Your task to perform on an android device: open app "Duolingo: language lessons" (install if not already installed) and go to login screen Image 0: 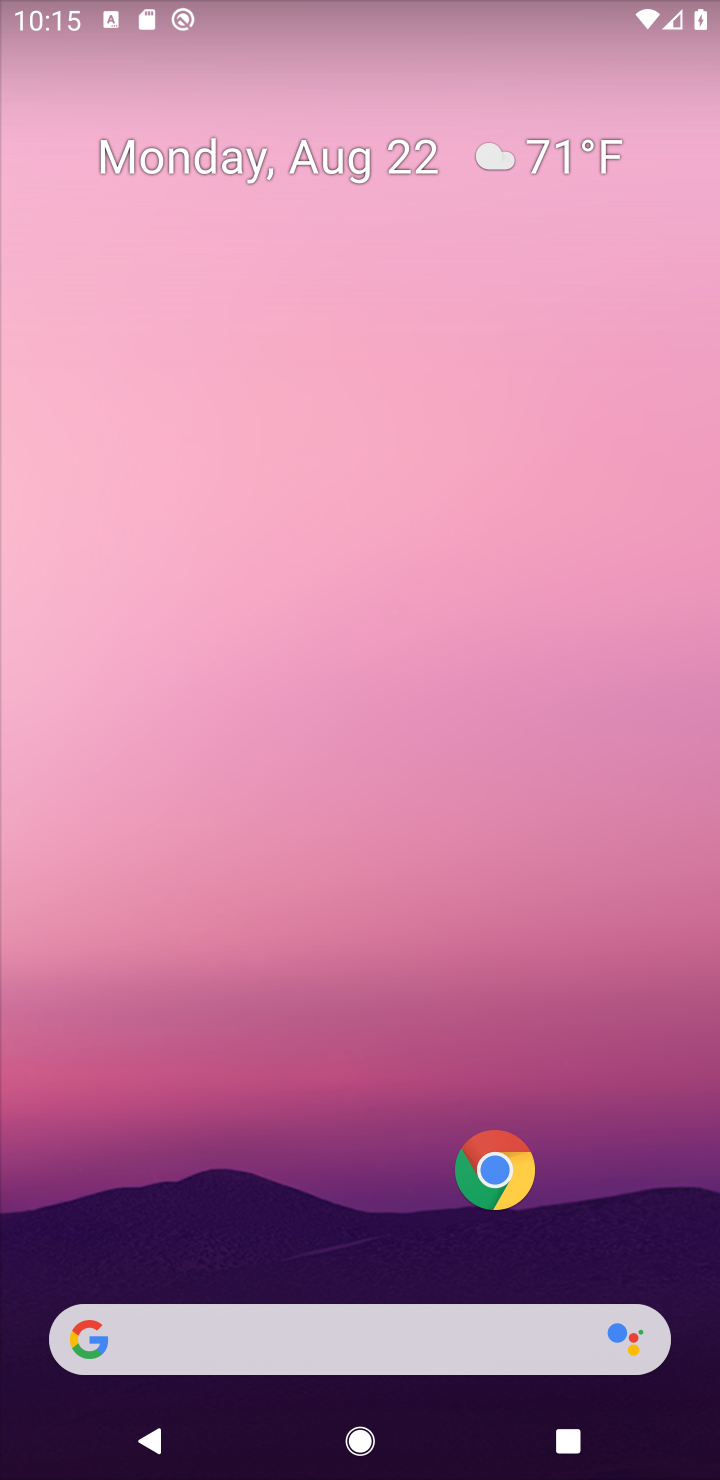
Step 0: drag from (424, 726) to (520, 196)
Your task to perform on an android device: open app "Duolingo: language lessons" (install if not already installed) and go to login screen Image 1: 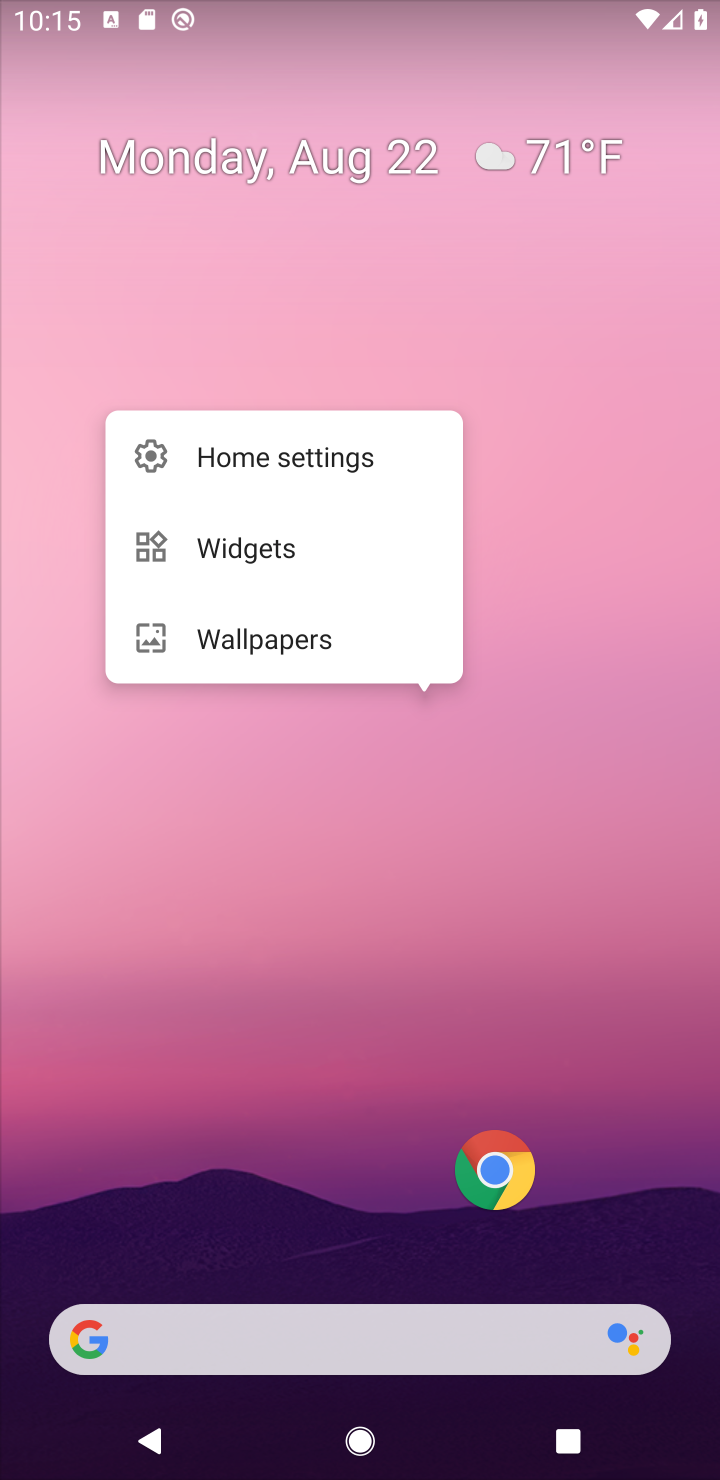
Step 1: click (274, 1142)
Your task to perform on an android device: open app "Duolingo: language lessons" (install if not already installed) and go to login screen Image 2: 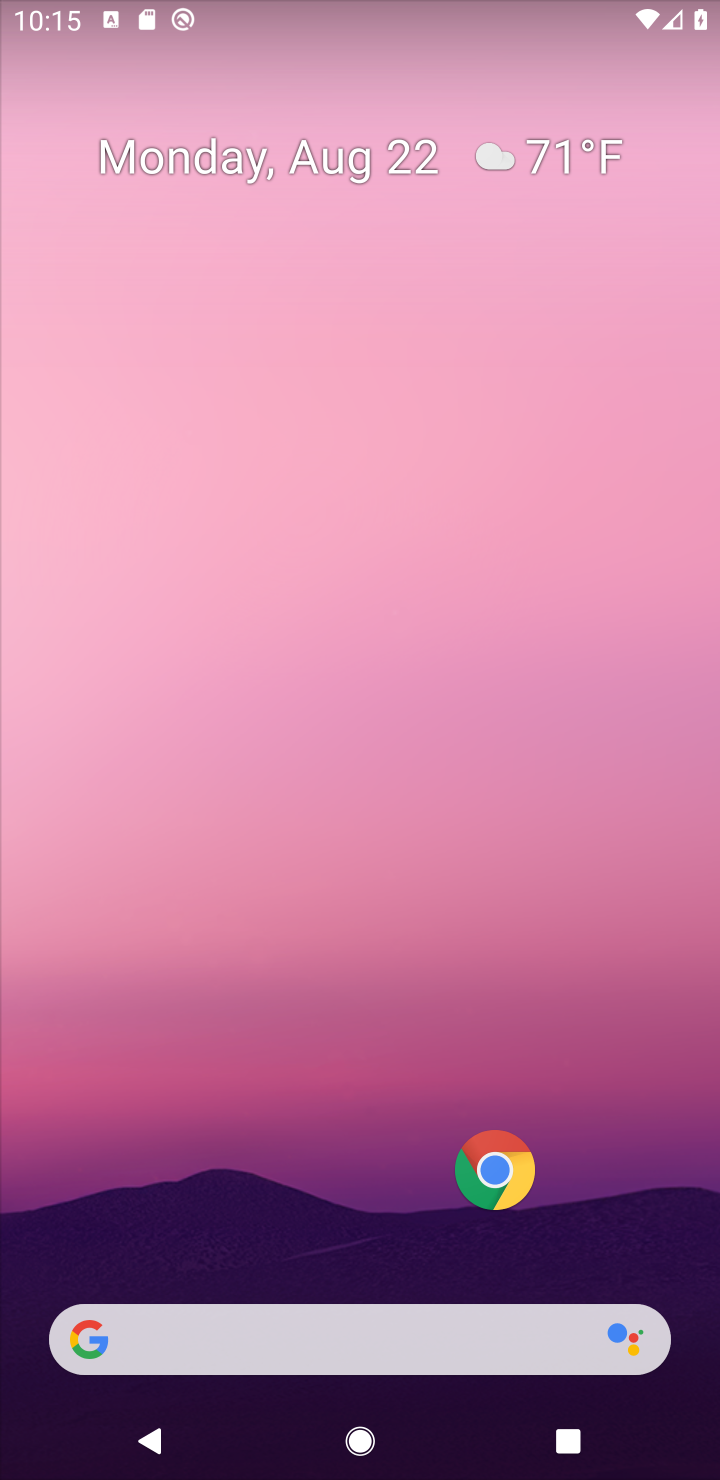
Step 2: drag from (241, 1138) to (413, 24)
Your task to perform on an android device: open app "Duolingo: language lessons" (install if not already installed) and go to login screen Image 3: 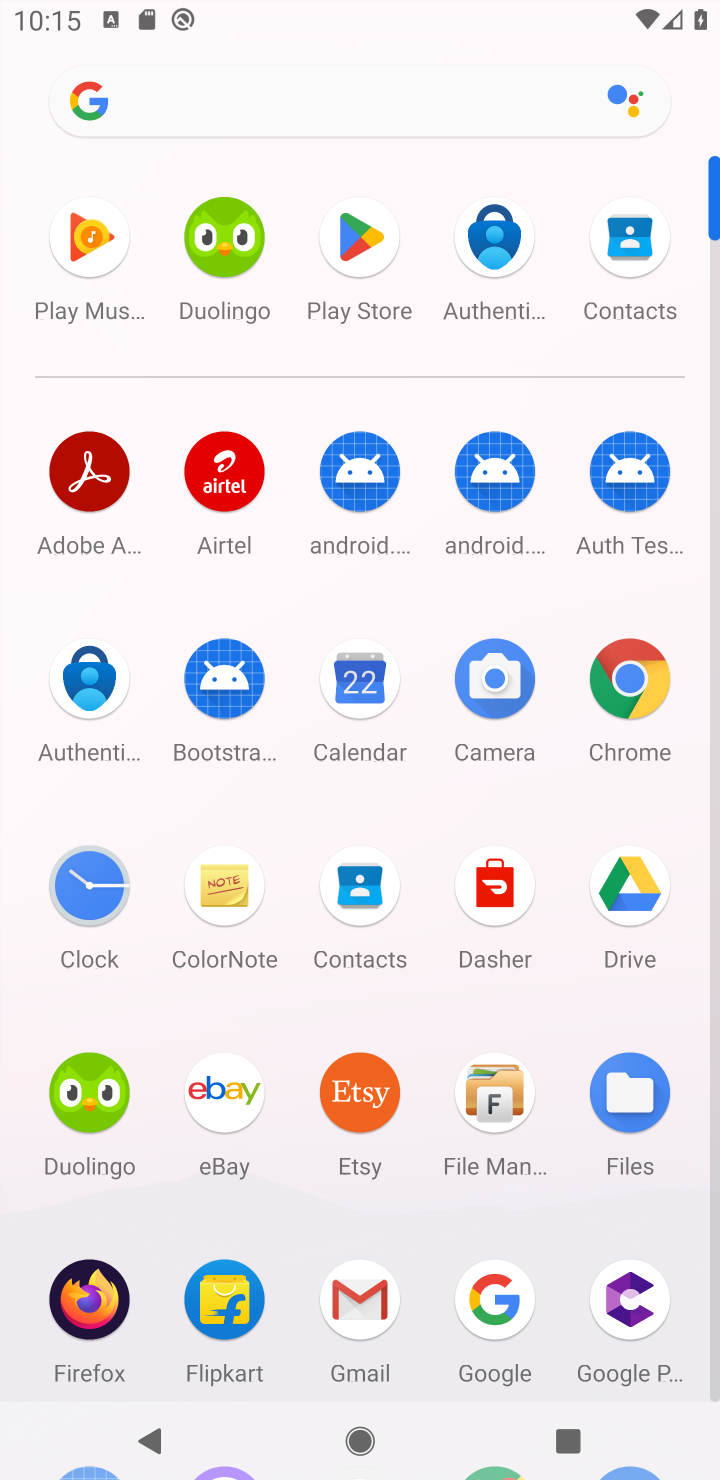
Step 3: click (366, 240)
Your task to perform on an android device: open app "Duolingo: language lessons" (install if not already installed) and go to login screen Image 4: 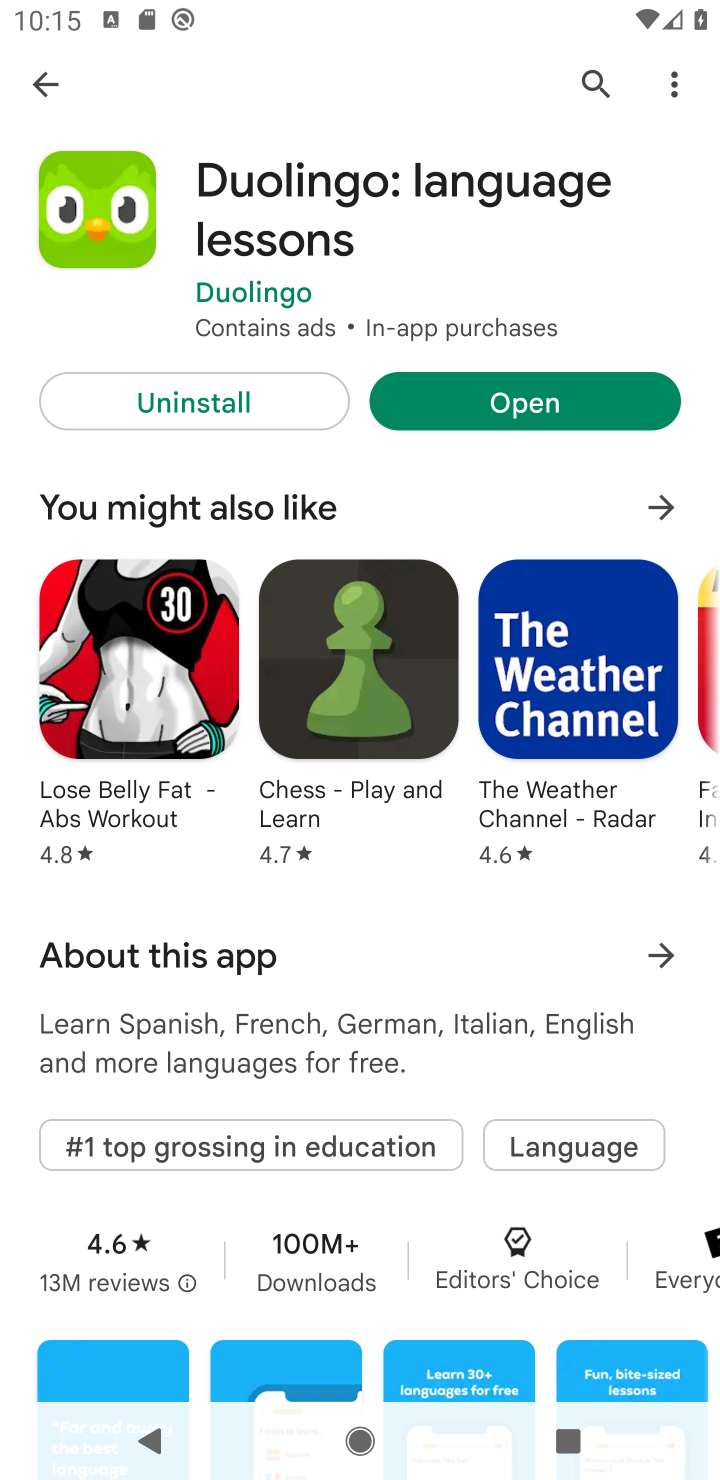
Step 4: click (591, 86)
Your task to perform on an android device: open app "Duolingo: language lessons" (install if not already installed) and go to login screen Image 5: 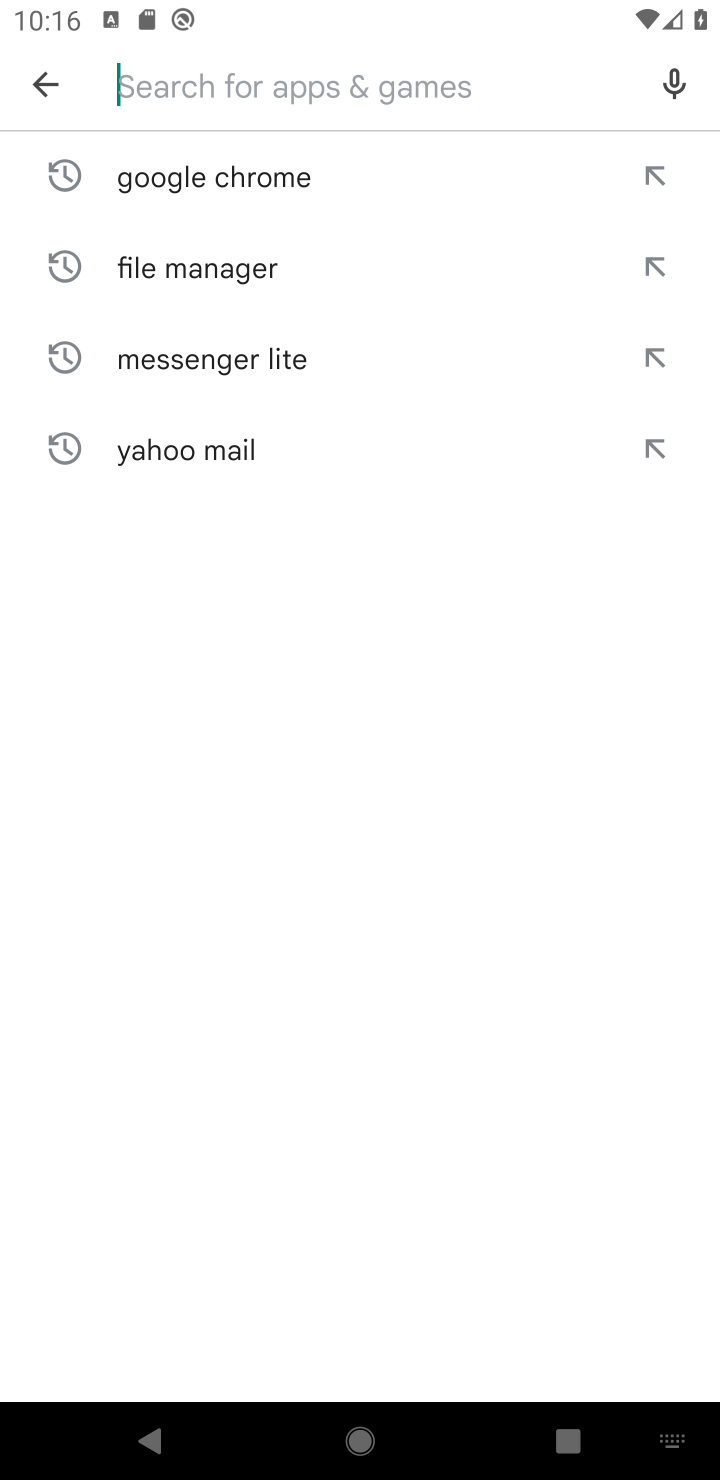
Step 5: press back button
Your task to perform on an android device: open app "Duolingo: language lessons" (install if not already installed) and go to login screen Image 6: 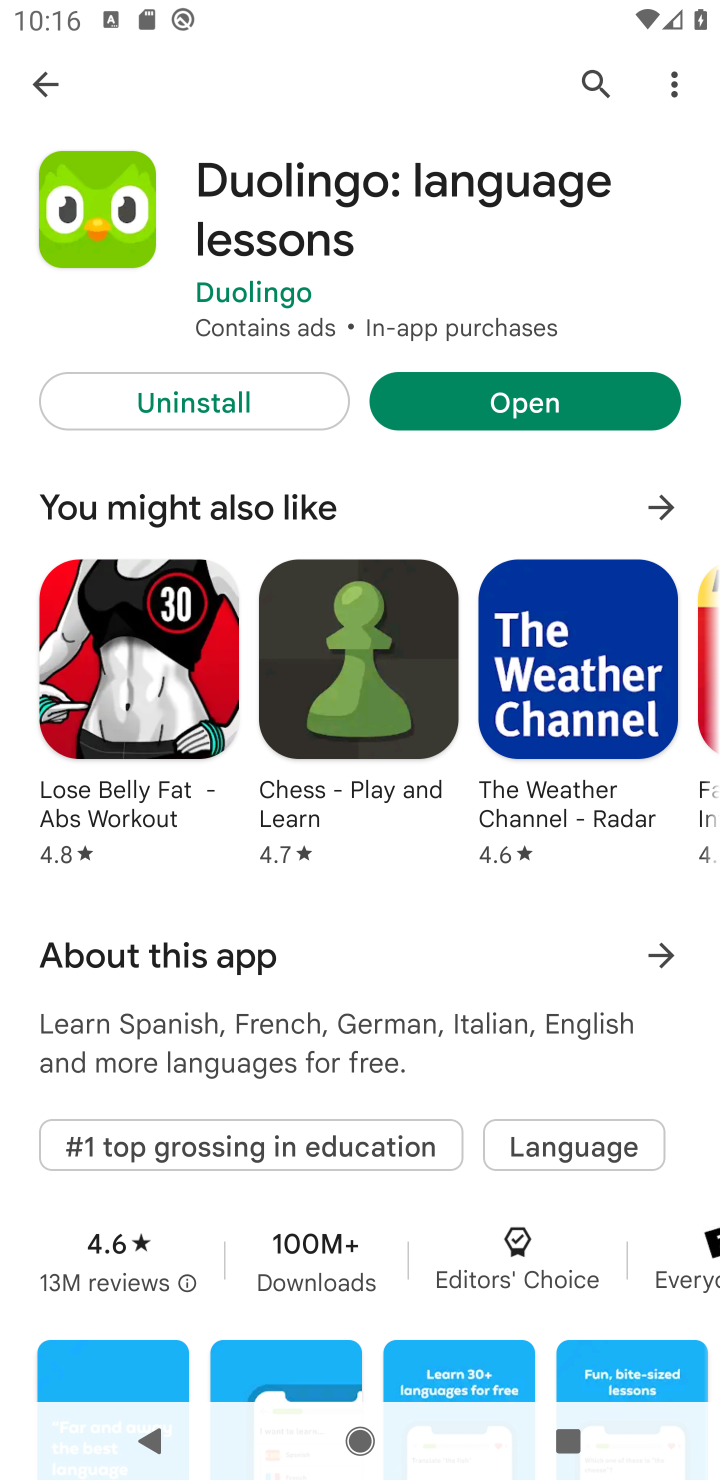
Step 6: click (493, 412)
Your task to perform on an android device: open app "Duolingo: language lessons" (install if not already installed) and go to login screen Image 7: 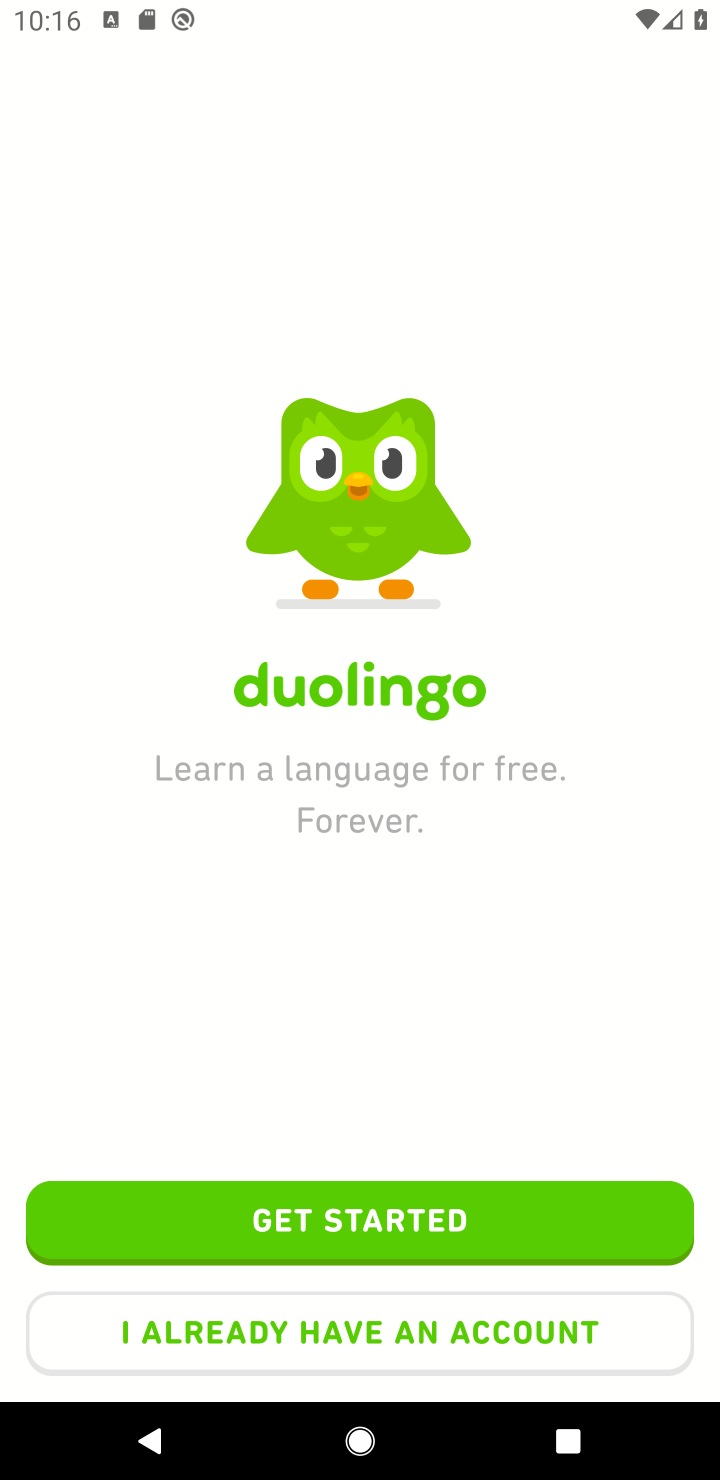
Step 7: click (296, 1338)
Your task to perform on an android device: open app "Duolingo: language lessons" (install if not already installed) and go to login screen Image 8: 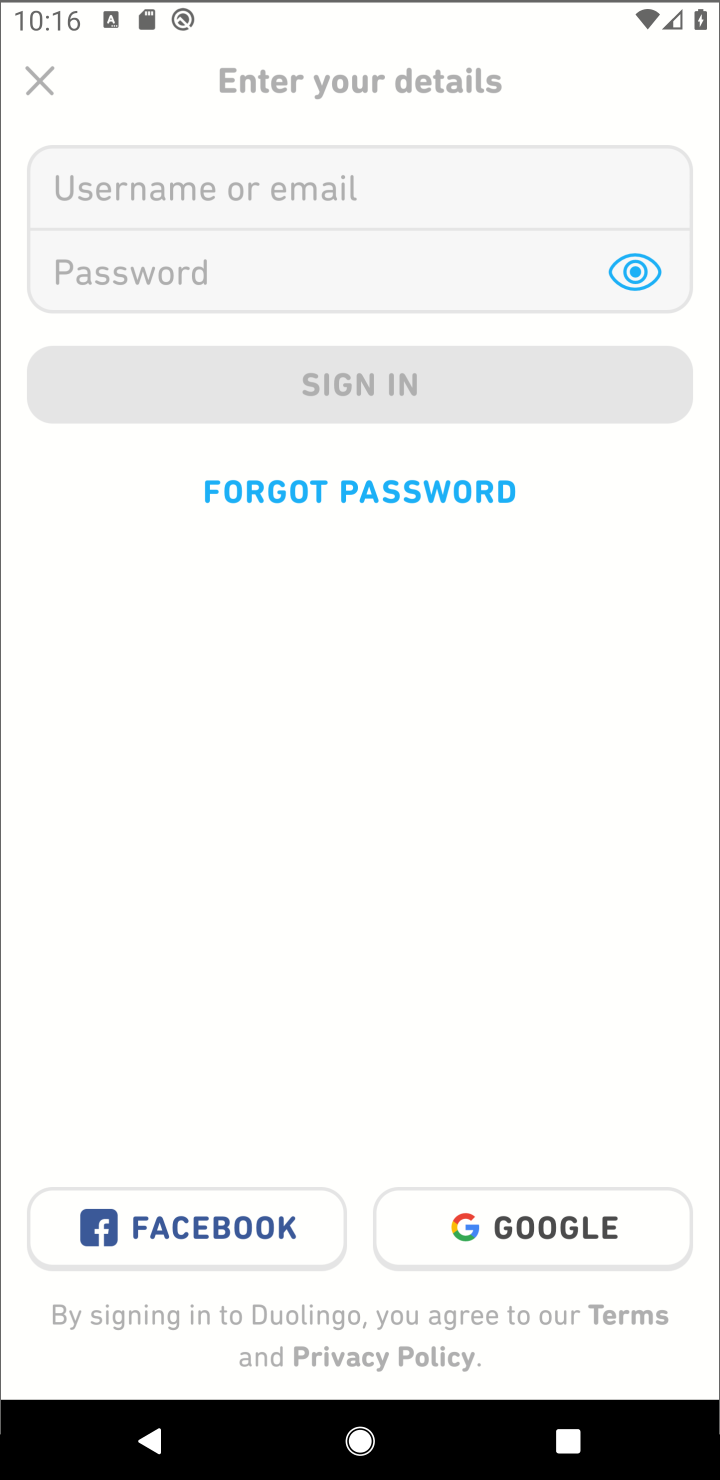
Step 8: click (313, 1317)
Your task to perform on an android device: open app "Duolingo: language lessons" (install if not already installed) and go to login screen Image 9: 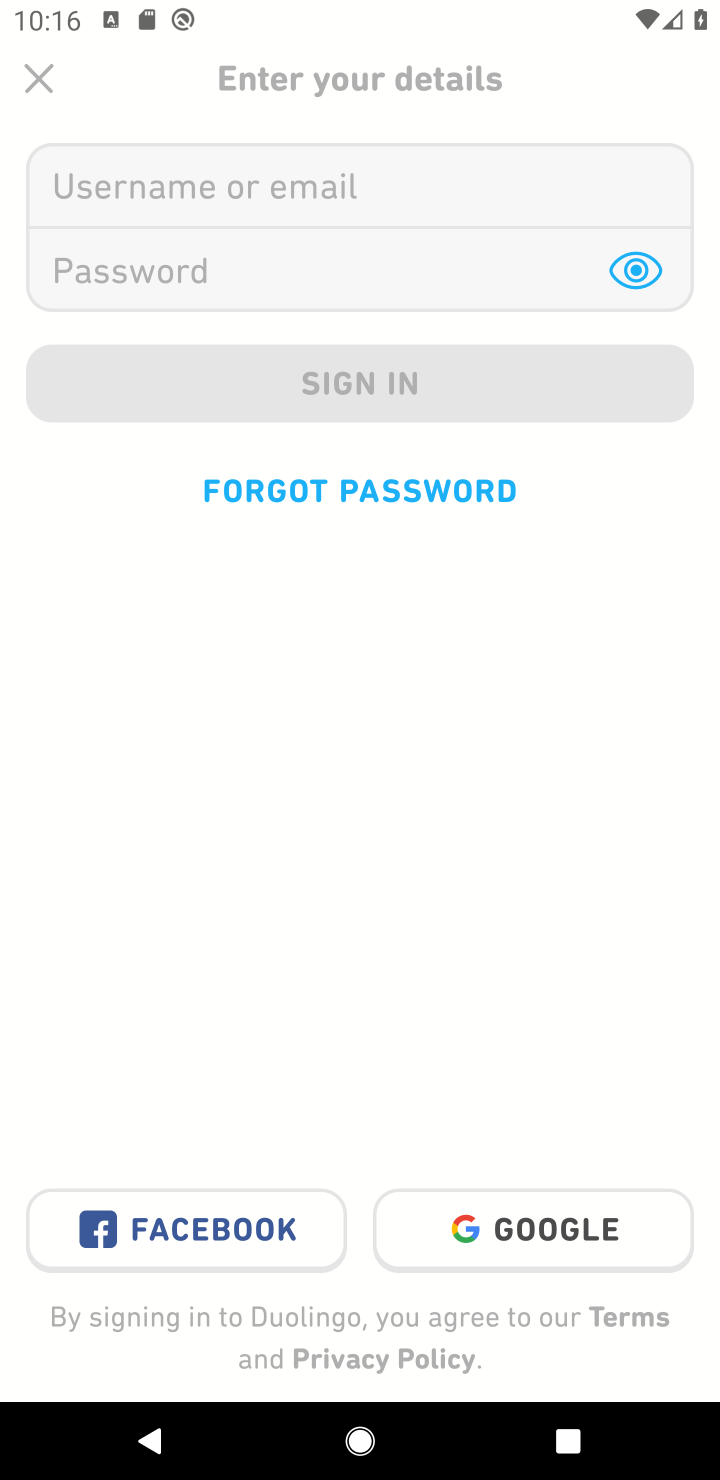
Step 9: task complete